Your task to perform on an android device: Open Wikipedia Image 0: 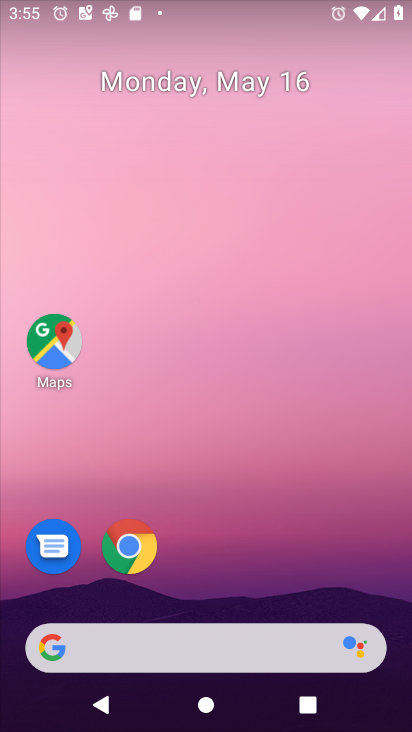
Step 0: drag from (366, 578) to (358, 174)
Your task to perform on an android device: Open Wikipedia Image 1: 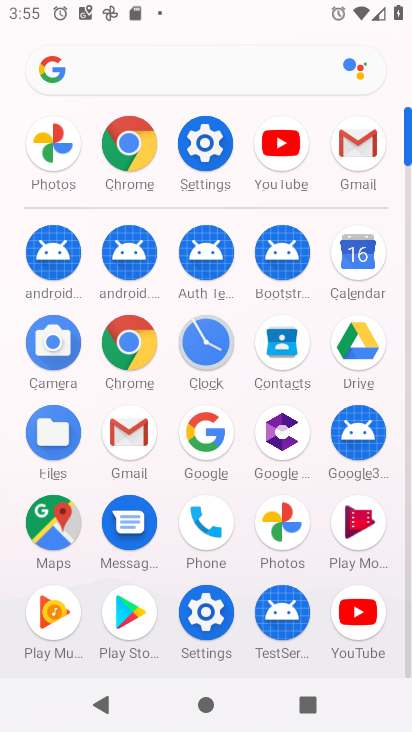
Step 1: click (147, 330)
Your task to perform on an android device: Open Wikipedia Image 2: 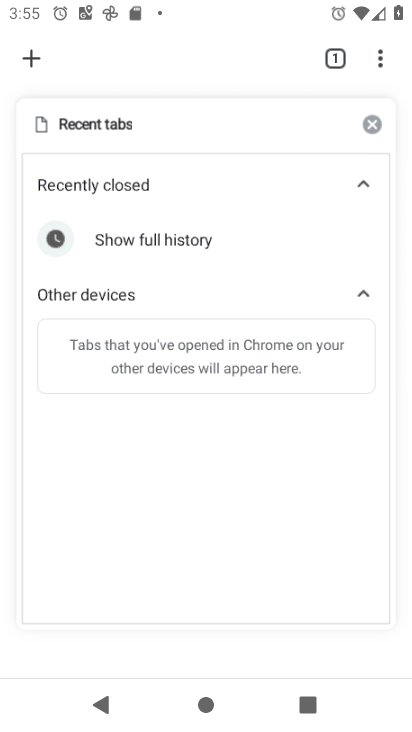
Step 2: press back button
Your task to perform on an android device: Open Wikipedia Image 3: 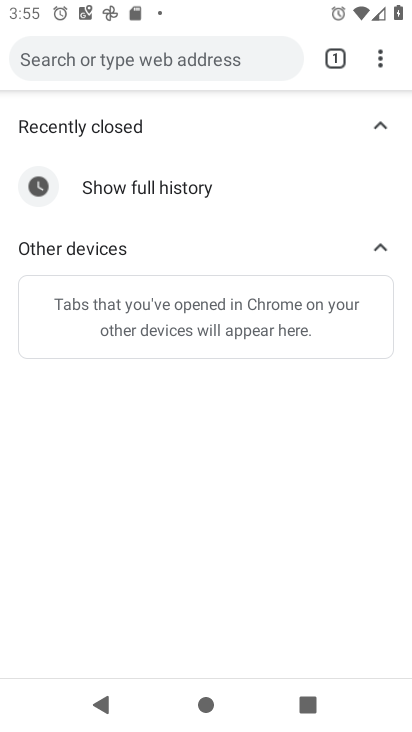
Step 3: click (175, 55)
Your task to perform on an android device: Open Wikipedia Image 4: 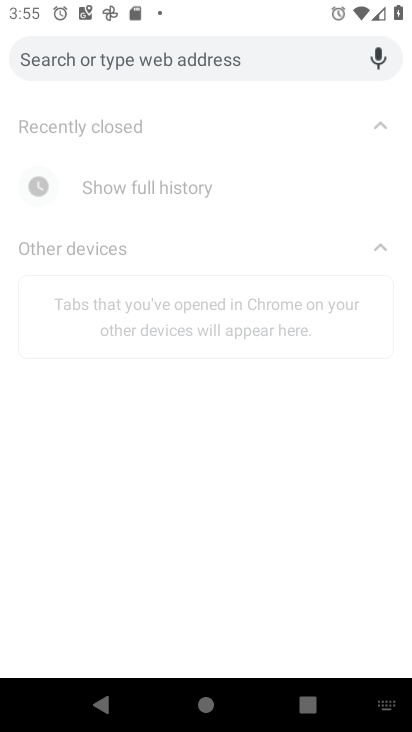
Step 4: type "wikipedia"
Your task to perform on an android device: Open Wikipedia Image 5: 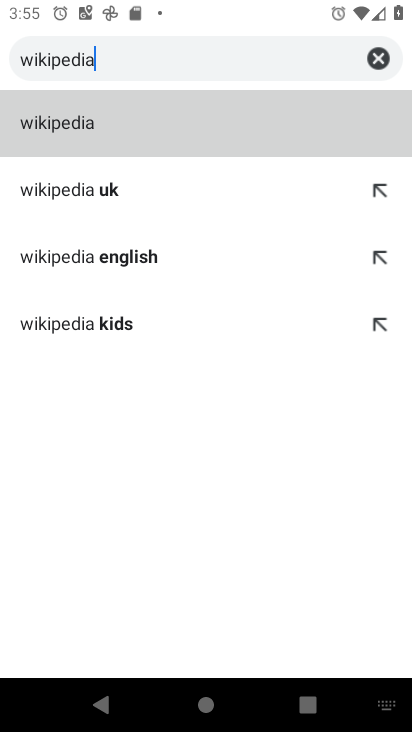
Step 5: click (69, 135)
Your task to perform on an android device: Open Wikipedia Image 6: 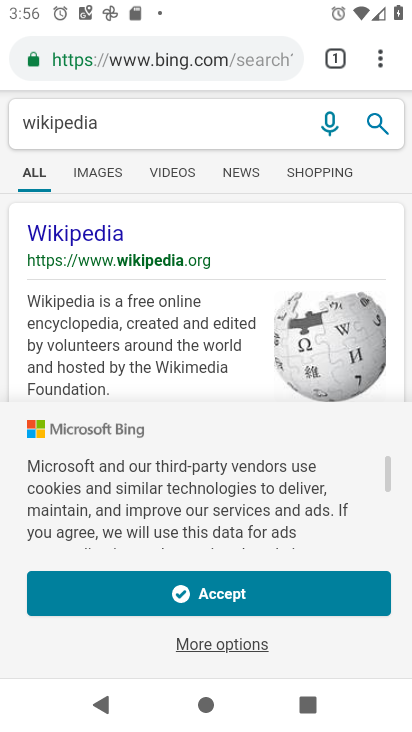
Step 6: click (80, 239)
Your task to perform on an android device: Open Wikipedia Image 7: 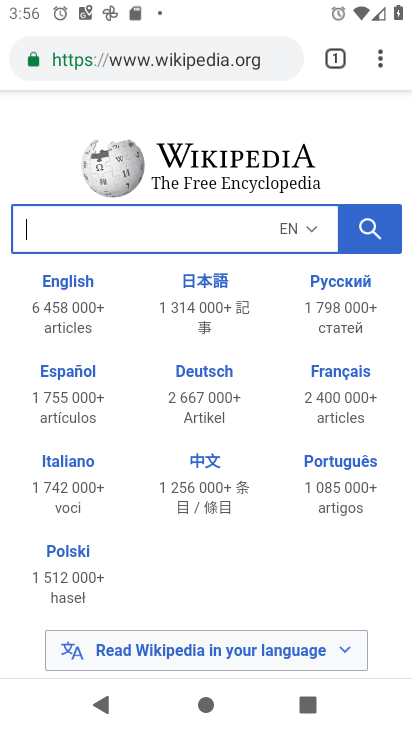
Step 7: task complete